Your task to perform on an android device: change the clock style Image 0: 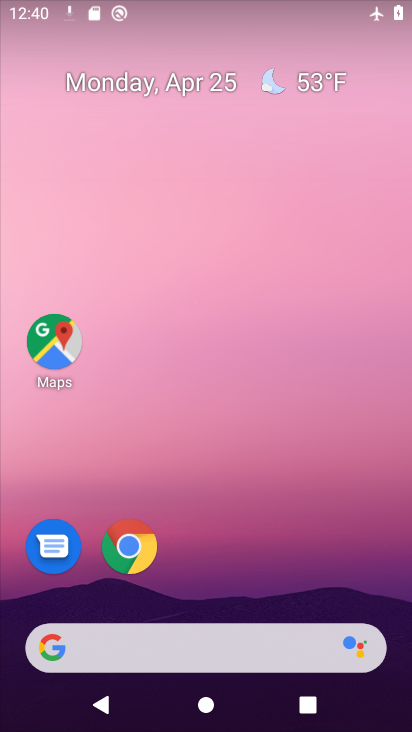
Step 0: drag from (268, 599) to (265, 36)
Your task to perform on an android device: change the clock style Image 1: 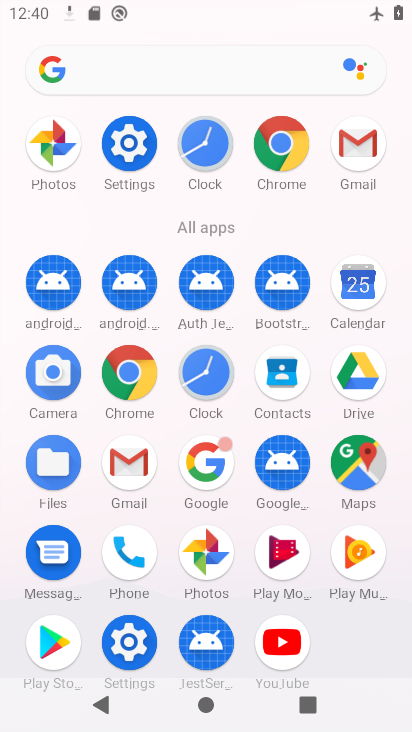
Step 1: click (211, 365)
Your task to perform on an android device: change the clock style Image 2: 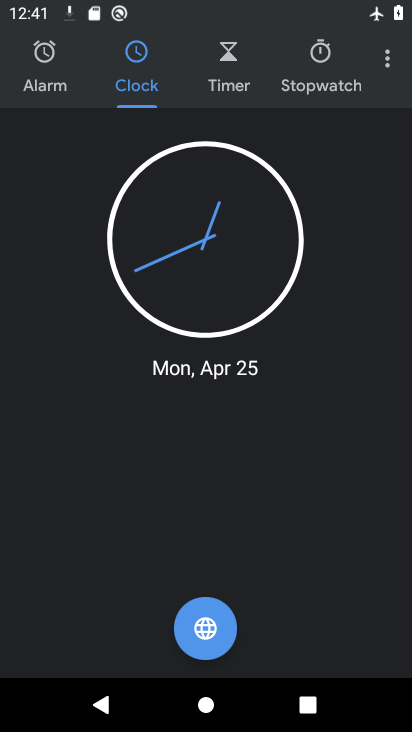
Step 2: click (383, 62)
Your task to perform on an android device: change the clock style Image 3: 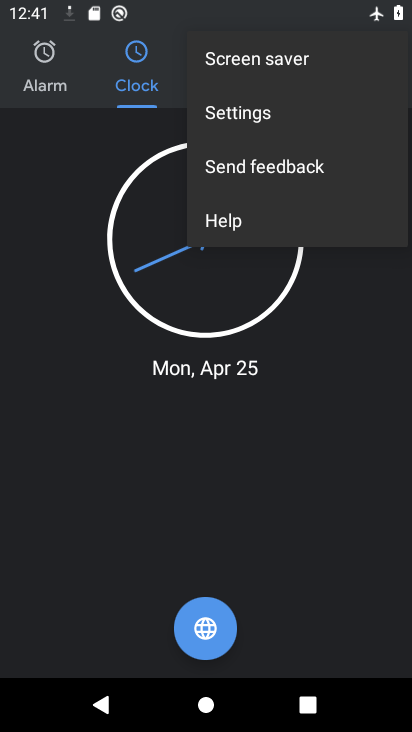
Step 3: click (288, 110)
Your task to perform on an android device: change the clock style Image 4: 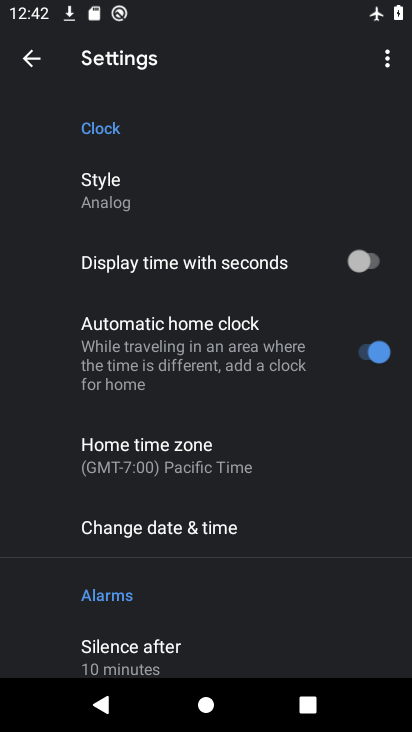
Step 4: click (135, 197)
Your task to perform on an android device: change the clock style Image 5: 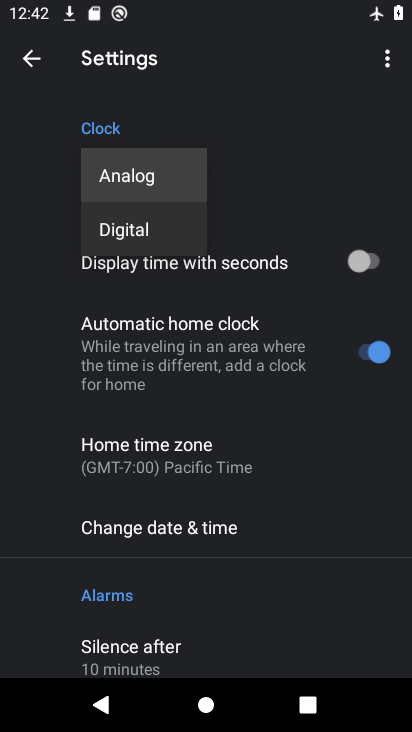
Step 5: click (150, 228)
Your task to perform on an android device: change the clock style Image 6: 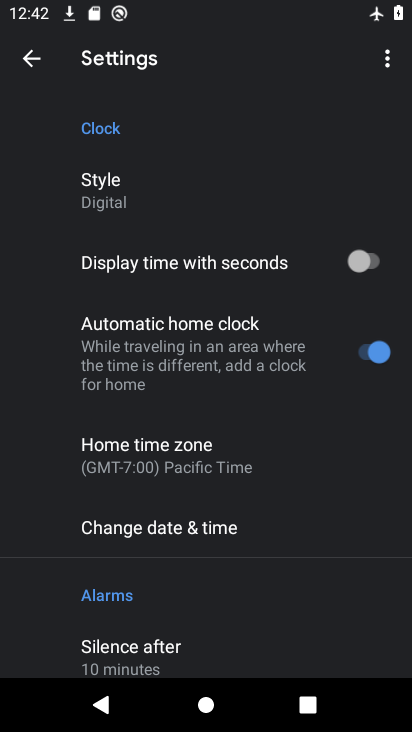
Step 6: task complete